Your task to perform on an android device: remove spam from my inbox in the gmail app Image 0: 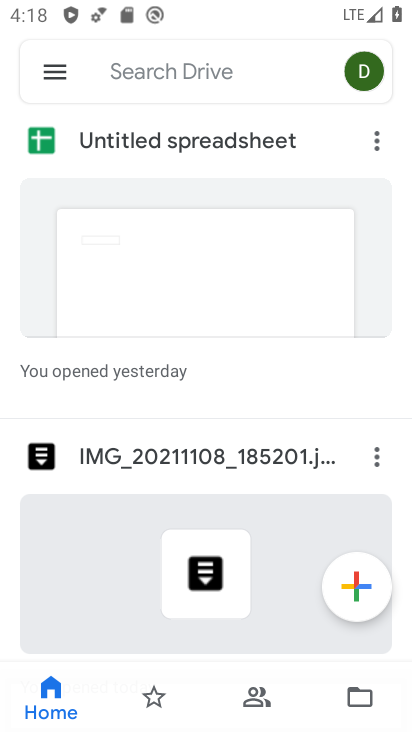
Step 0: press home button
Your task to perform on an android device: remove spam from my inbox in the gmail app Image 1: 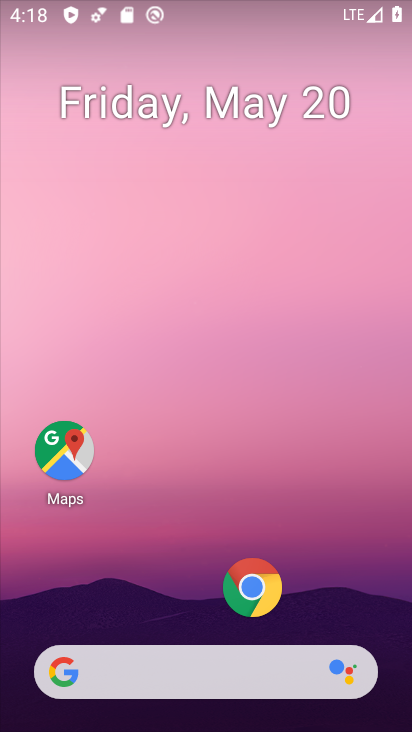
Step 1: drag from (192, 631) to (258, 32)
Your task to perform on an android device: remove spam from my inbox in the gmail app Image 2: 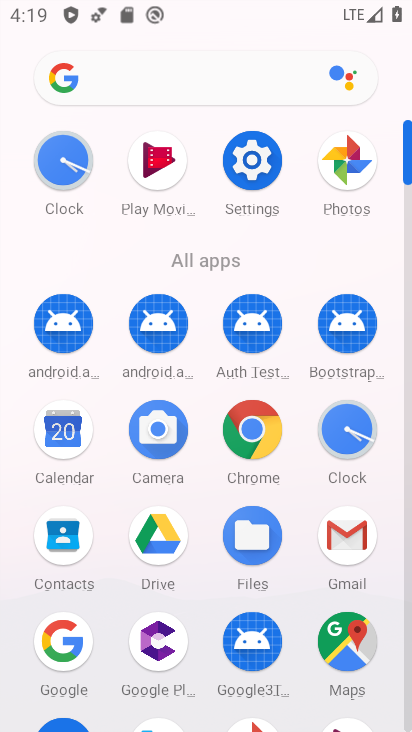
Step 2: click (347, 539)
Your task to perform on an android device: remove spam from my inbox in the gmail app Image 3: 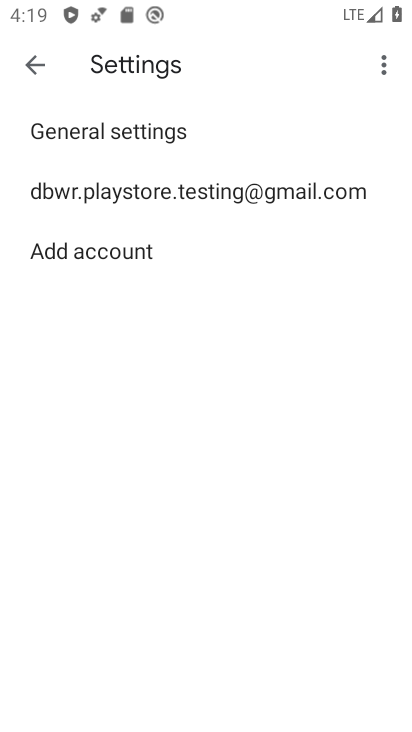
Step 3: click (52, 72)
Your task to perform on an android device: remove spam from my inbox in the gmail app Image 4: 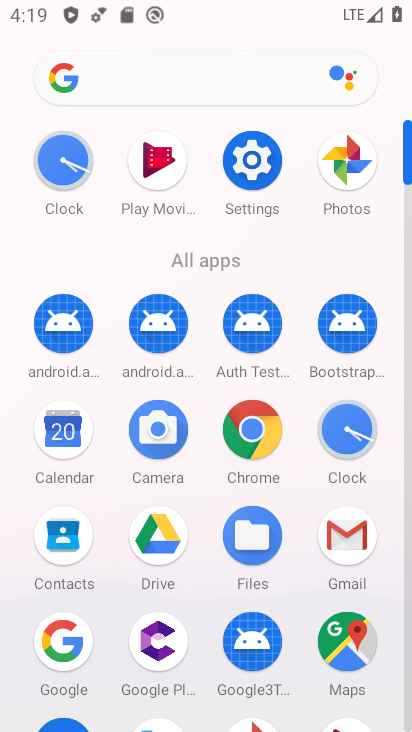
Step 4: click (354, 542)
Your task to perform on an android device: remove spam from my inbox in the gmail app Image 5: 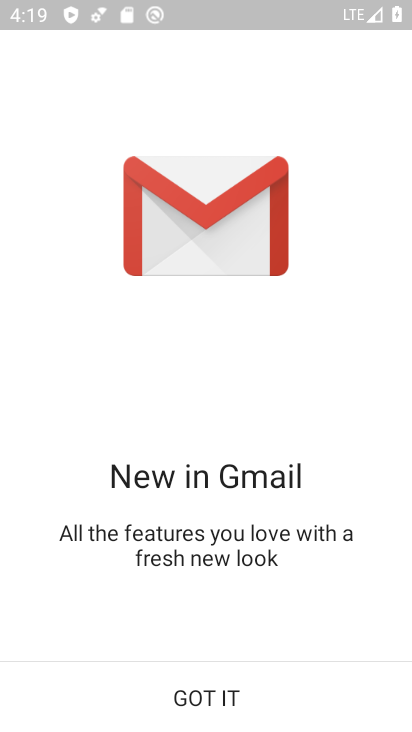
Step 5: click (156, 705)
Your task to perform on an android device: remove spam from my inbox in the gmail app Image 6: 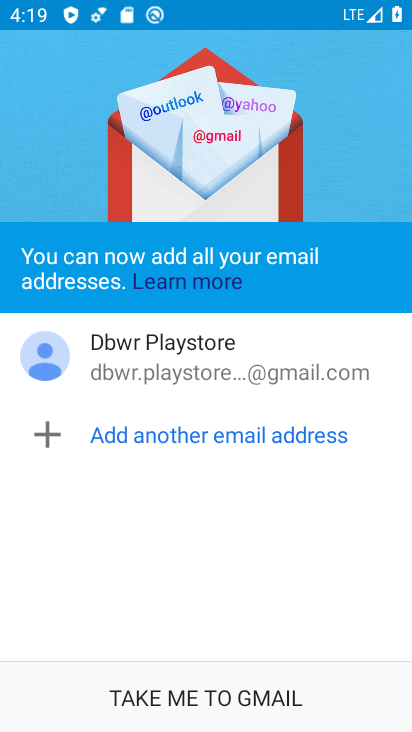
Step 6: click (156, 705)
Your task to perform on an android device: remove spam from my inbox in the gmail app Image 7: 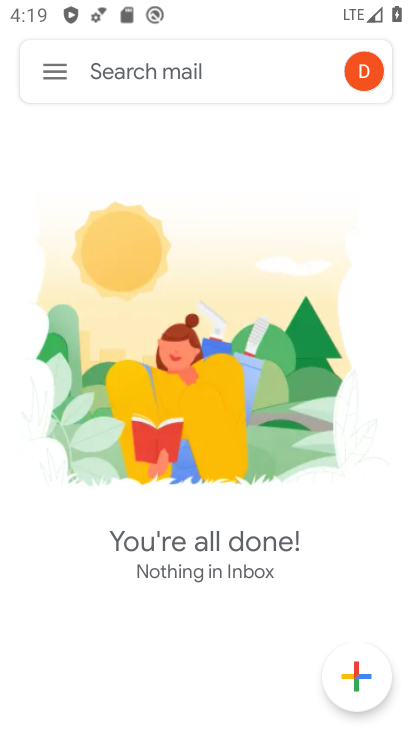
Step 7: click (65, 76)
Your task to perform on an android device: remove spam from my inbox in the gmail app Image 8: 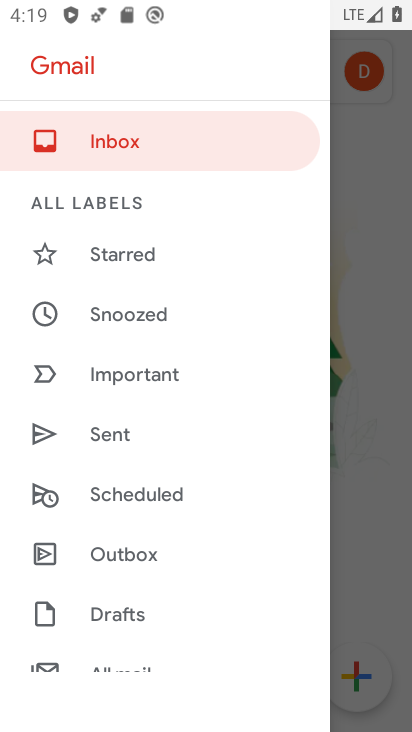
Step 8: drag from (130, 599) to (207, 200)
Your task to perform on an android device: remove spam from my inbox in the gmail app Image 9: 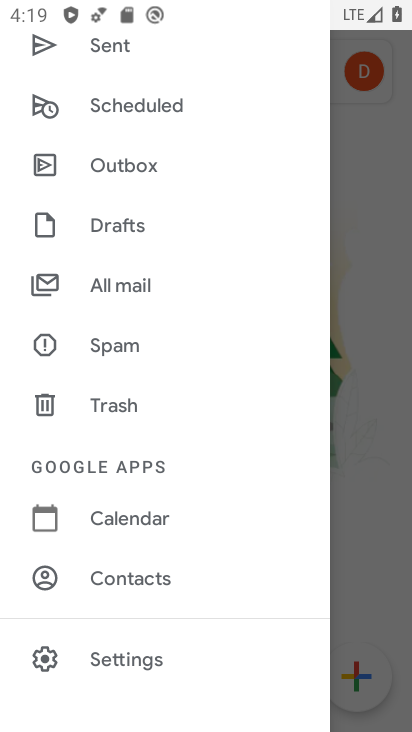
Step 9: click (122, 361)
Your task to perform on an android device: remove spam from my inbox in the gmail app Image 10: 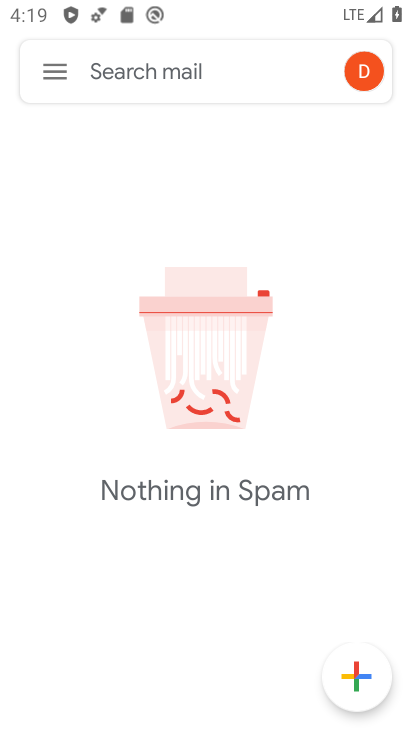
Step 10: task complete